Your task to perform on an android device: Open the contacts app Image 0: 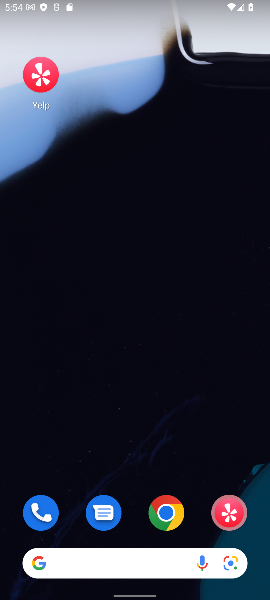
Step 0: drag from (141, 531) to (89, 59)
Your task to perform on an android device: Open the contacts app Image 1: 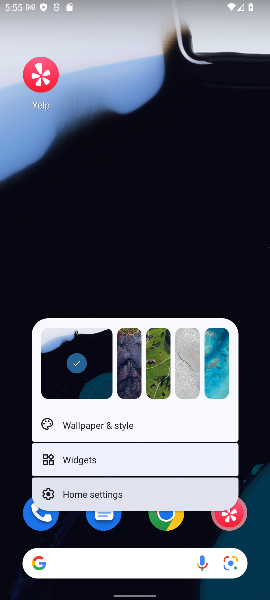
Step 1: click (85, 158)
Your task to perform on an android device: Open the contacts app Image 2: 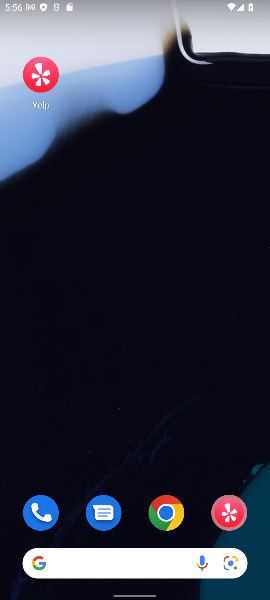
Step 2: task complete